Your task to perform on an android device: manage bookmarks in the chrome app Image 0: 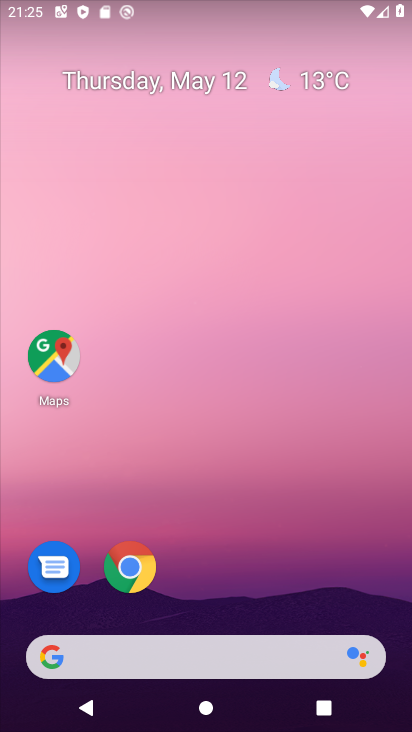
Step 0: click (125, 564)
Your task to perform on an android device: manage bookmarks in the chrome app Image 1: 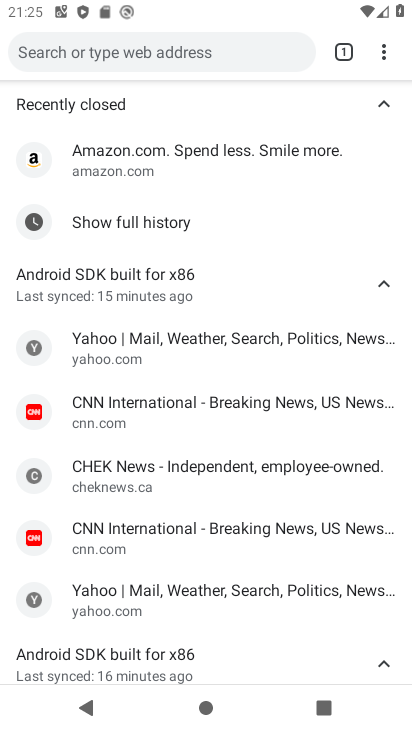
Step 1: click (384, 54)
Your task to perform on an android device: manage bookmarks in the chrome app Image 2: 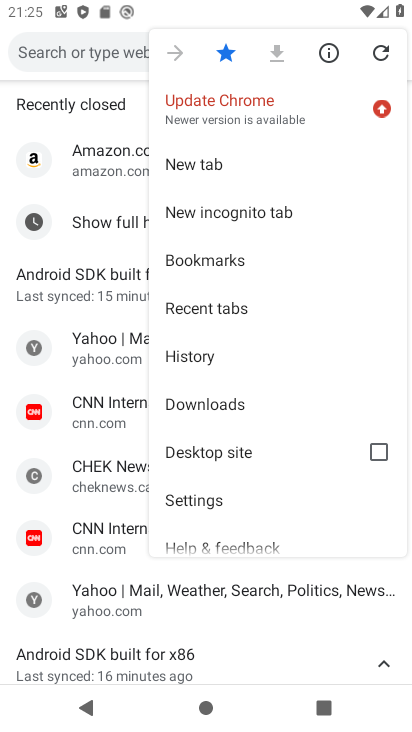
Step 2: click (255, 256)
Your task to perform on an android device: manage bookmarks in the chrome app Image 3: 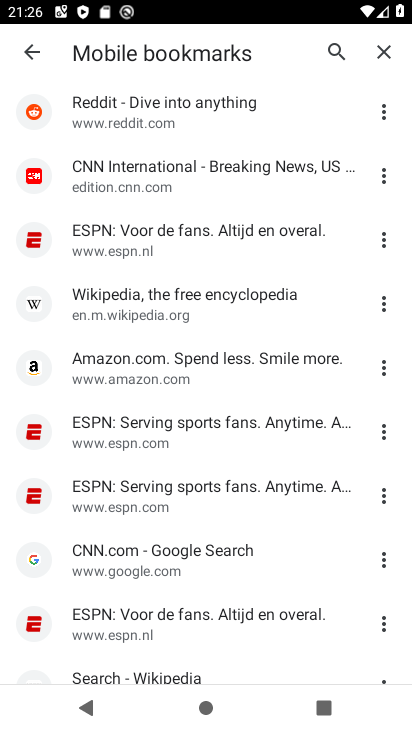
Step 3: click (383, 427)
Your task to perform on an android device: manage bookmarks in the chrome app Image 4: 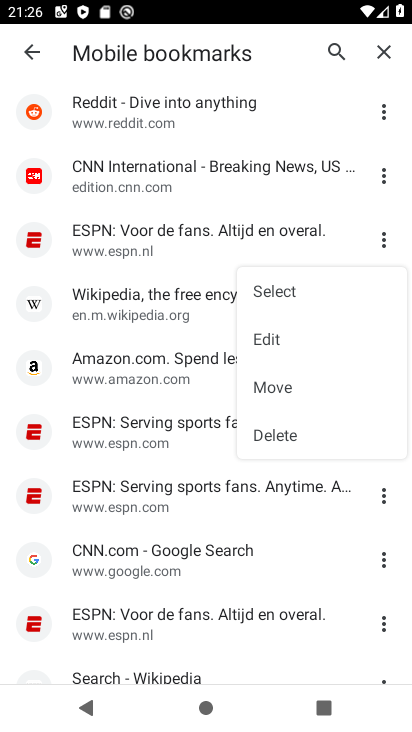
Step 4: click (309, 428)
Your task to perform on an android device: manage bookmarks in the chrome app Image 5: 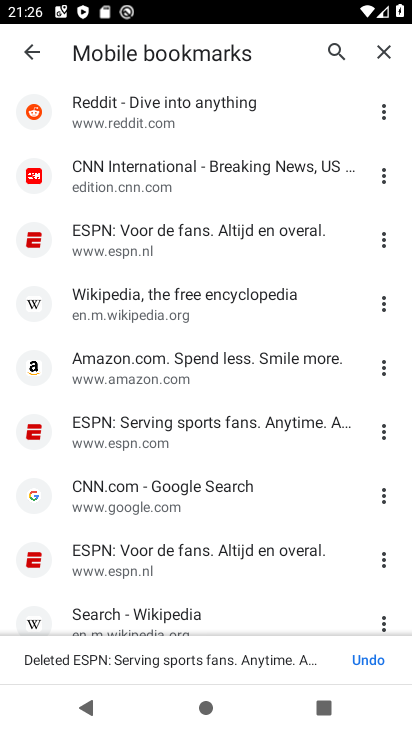
Step 5: task complete